Your task to perform on an android device: Show the shopping cart on newegg. Search for "usb-c to usb-b" on newegg, select the first entry, and add it to the cart. Image 0: 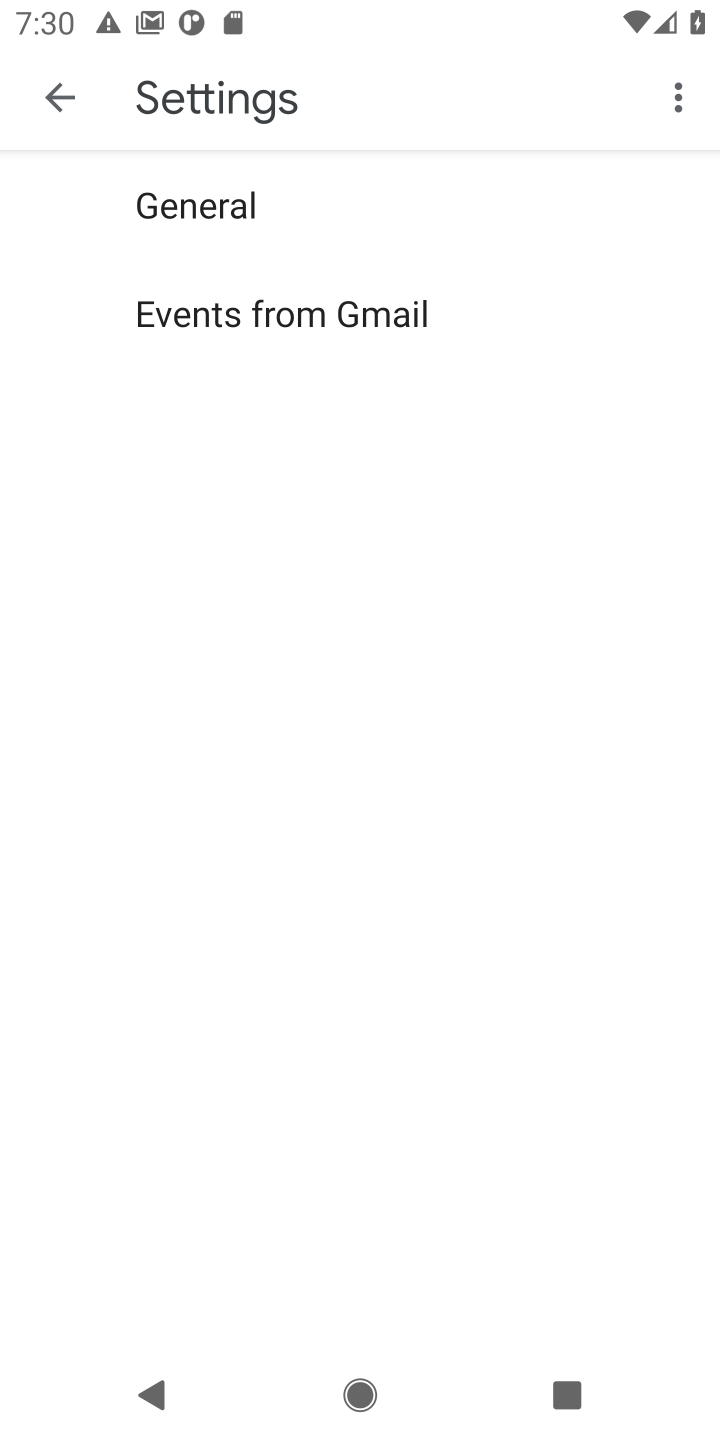
Step 0: press home button
Your task to perform on an android device: Show the shopping cart on newegg. Search for "usb-c to usb-b" on newegg, select the first entry, and add it to the cart. Image 1: 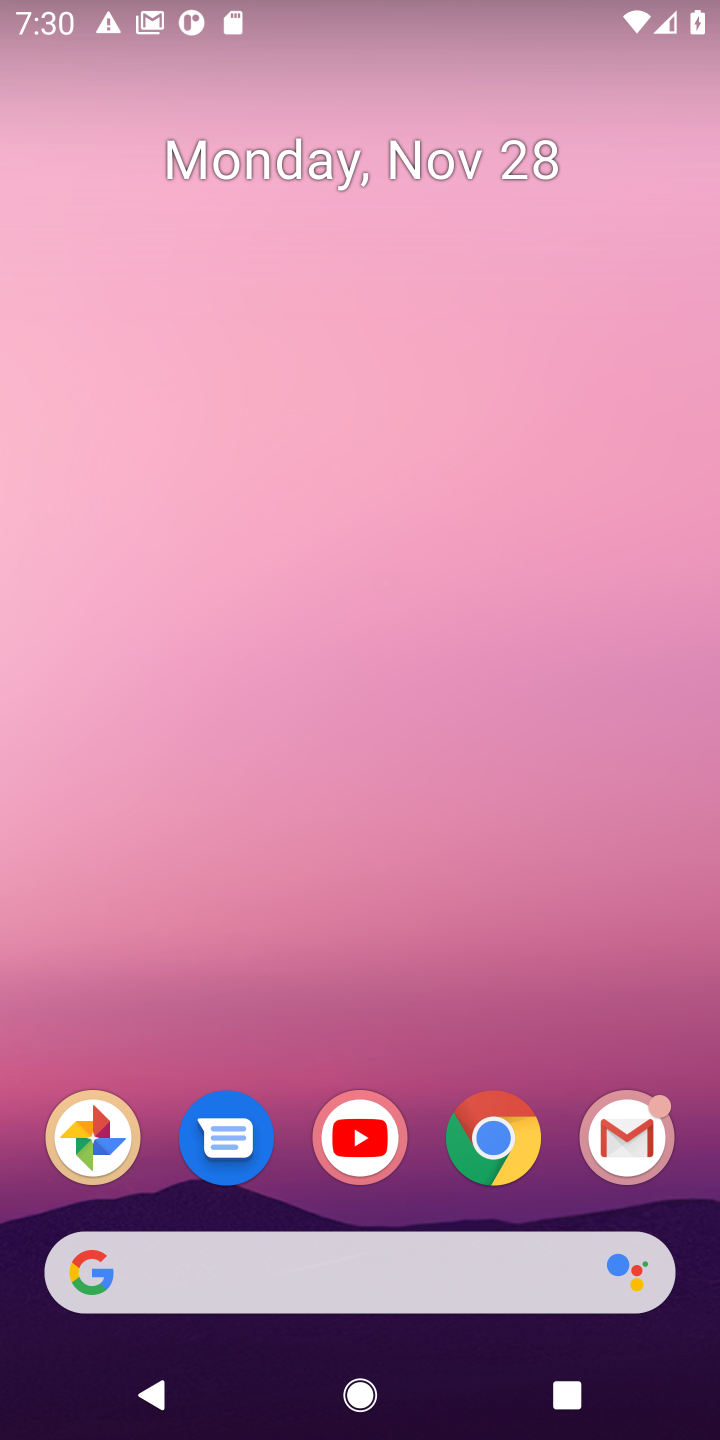
Step 1: click (476, 1147)
Your task to perform on an android device: Show the shopping cart on newegg. Search for "usb-c to usb-b" on newegg, select the first entry, and add it to the cart. Image 2: 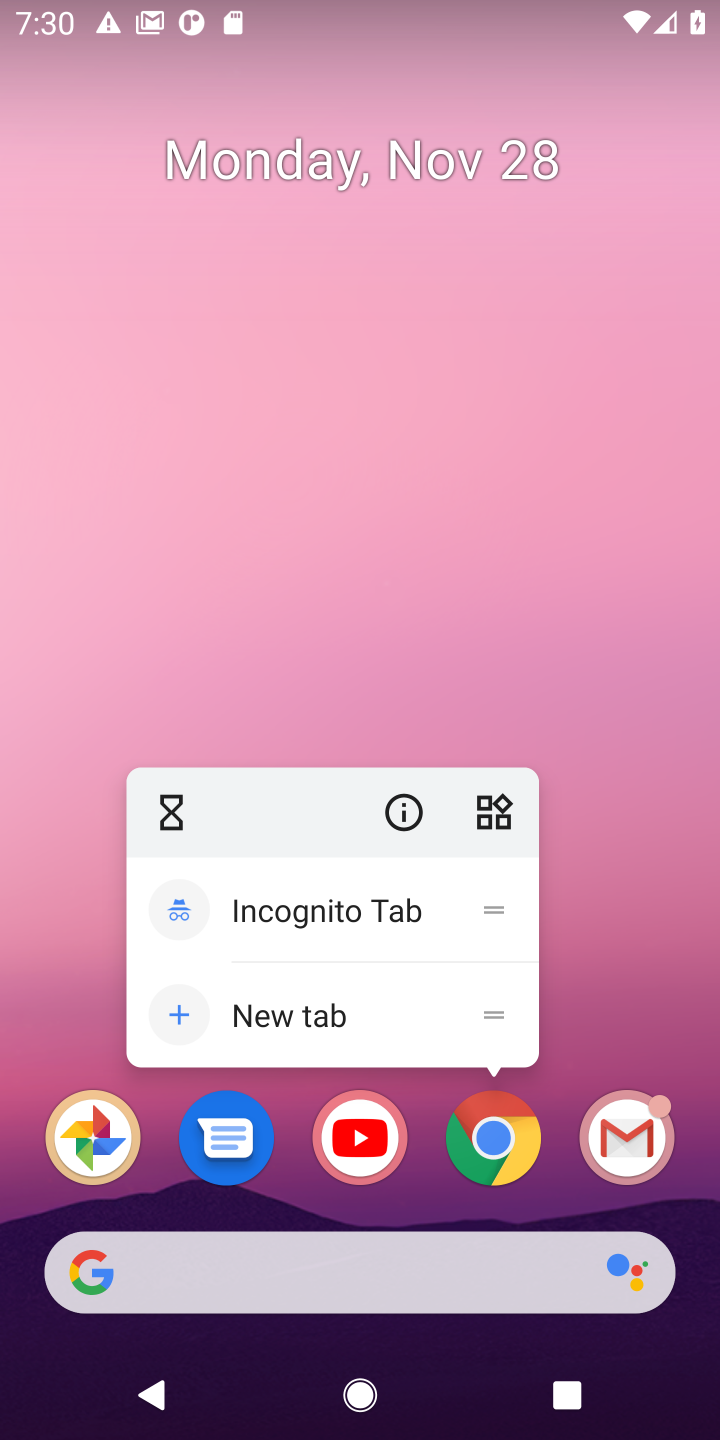
Step 2: click (511, 1141)
Your task to perform on an android device: Show the shopping cart on newegg. Search for "usb-c to usb-b" on newegg, select the first entry, and add it to the cart. Image 3: 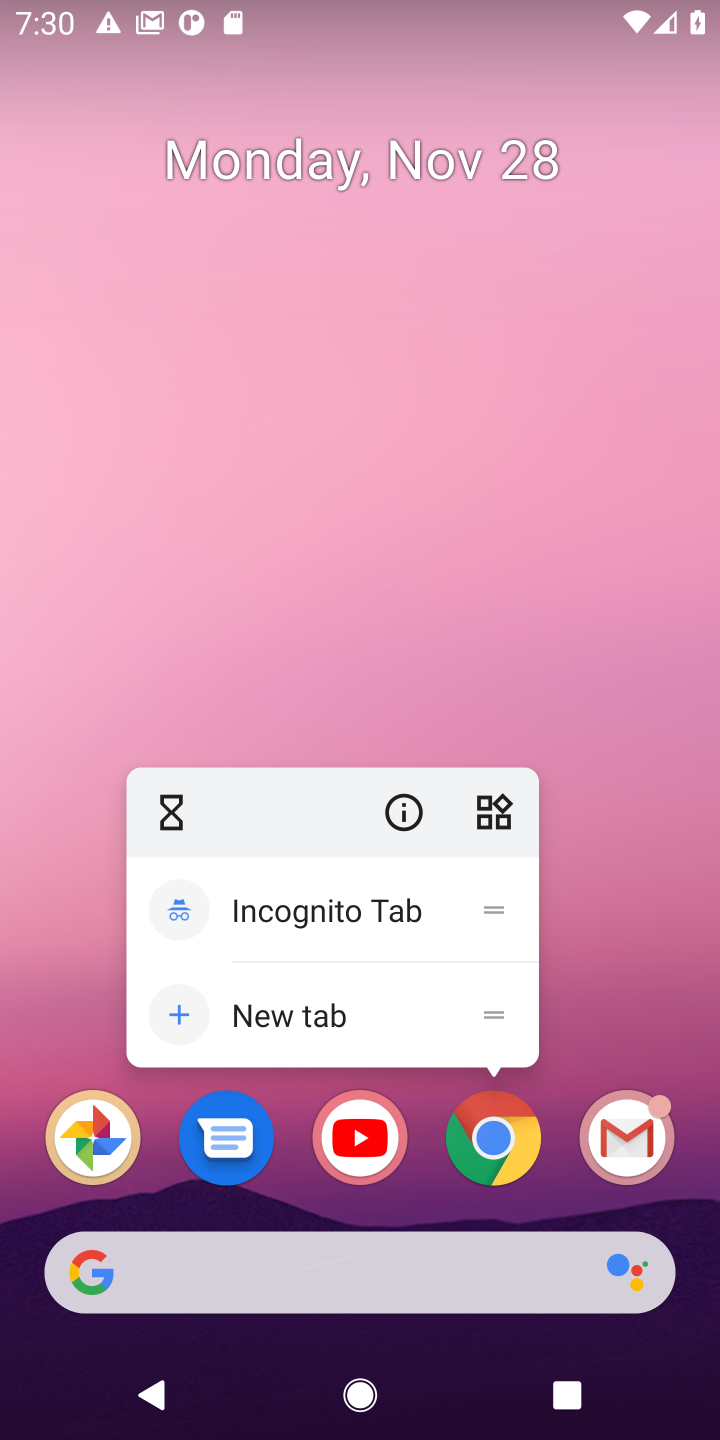
Step 3: click (495, 1155)
Your task to perform on an android device: Show the shopping cart on newegg. Search for "usb-c to usb-b" on newegg, select the first entry, and add it to the cart. Image 4: 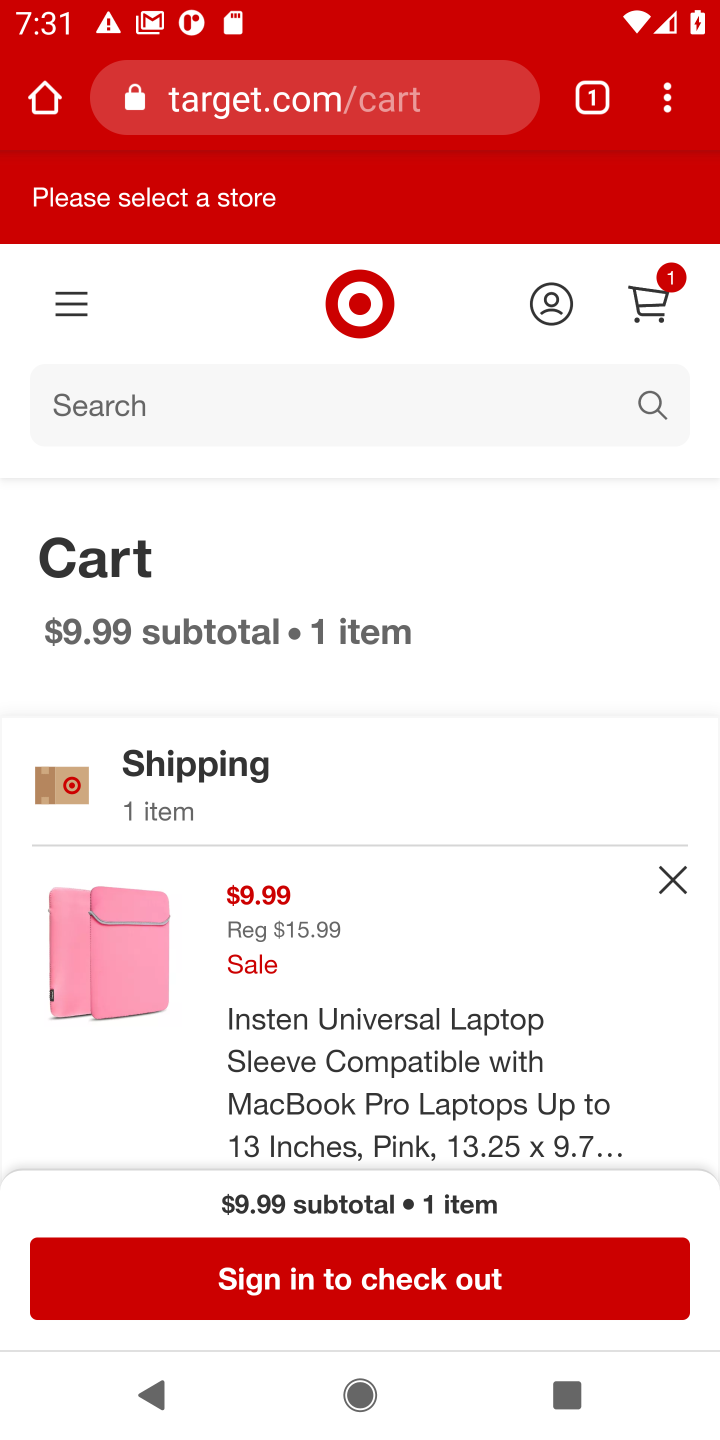
Step 4: click (277, 94)
Your task to perform on an android device: Show the shopping cart on newegg. Search for "usb-c to usb-b" on newegg, select the first entry, and add it to the cart. Image 5: 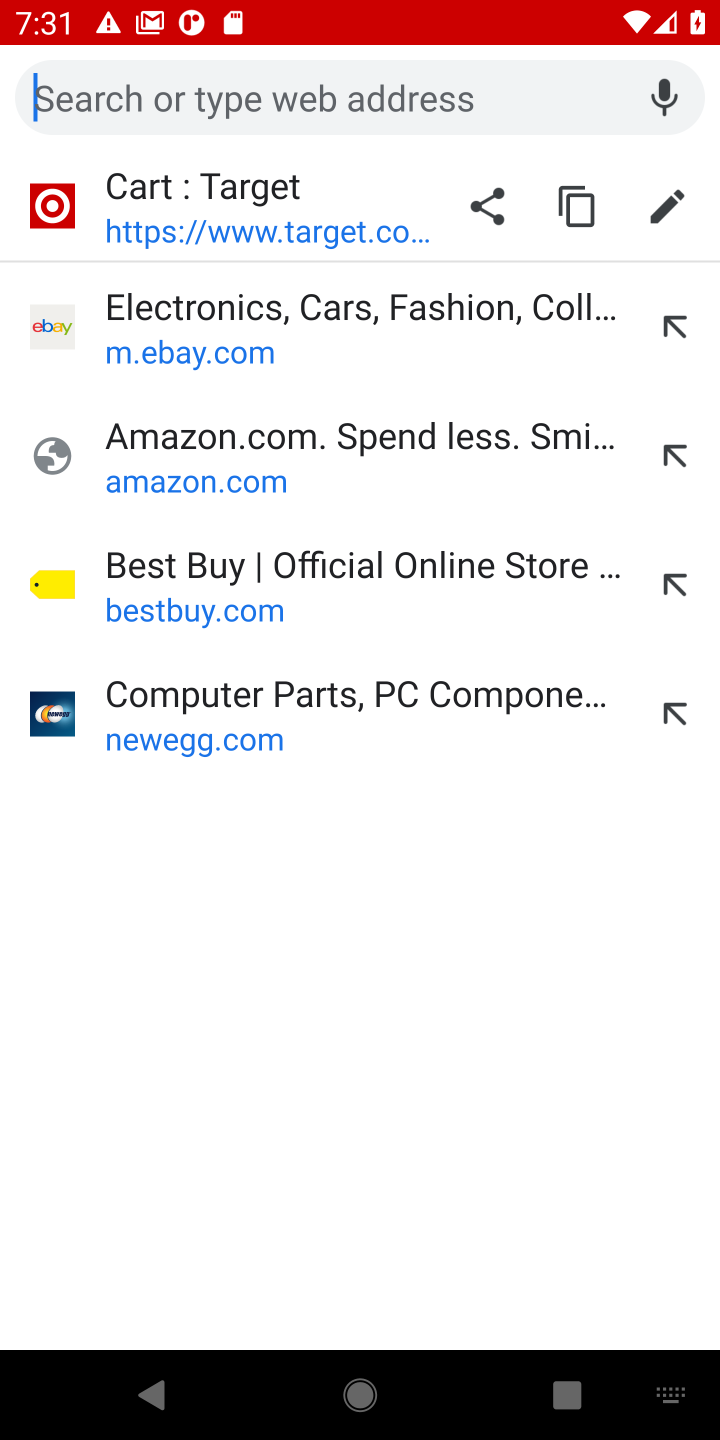
Step 5: click (173, 730)
Your task to perform on an android device: Show the shopping cart on newegg. Search for "usb-c to usb-b" on newegg, select the first entry, and add it to the cart. Image 6: 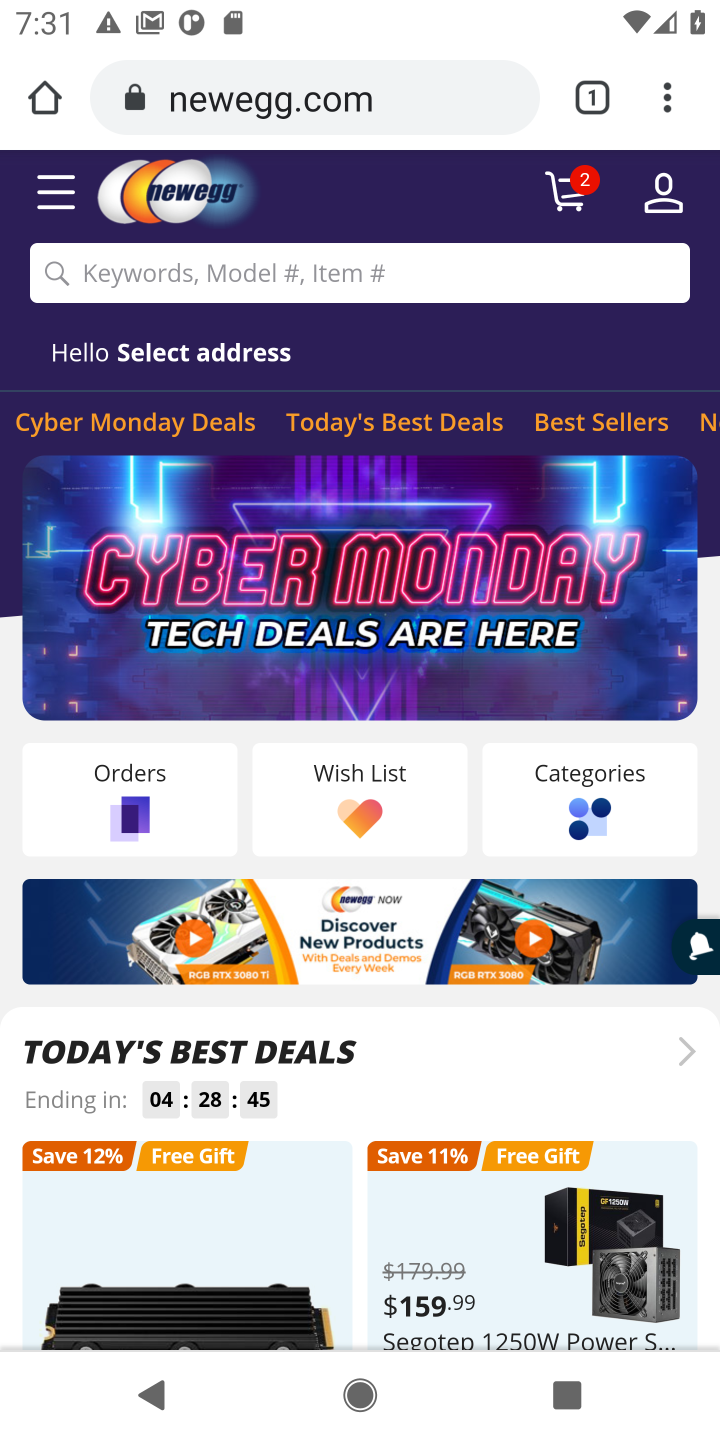
Step 6: click (570, 193)
Your task to perform on an android device: Show the shopping cart on newegg. Search for "usb-c to usb-b" on newegg, select the first entry, and add it to the cart. Image 7: 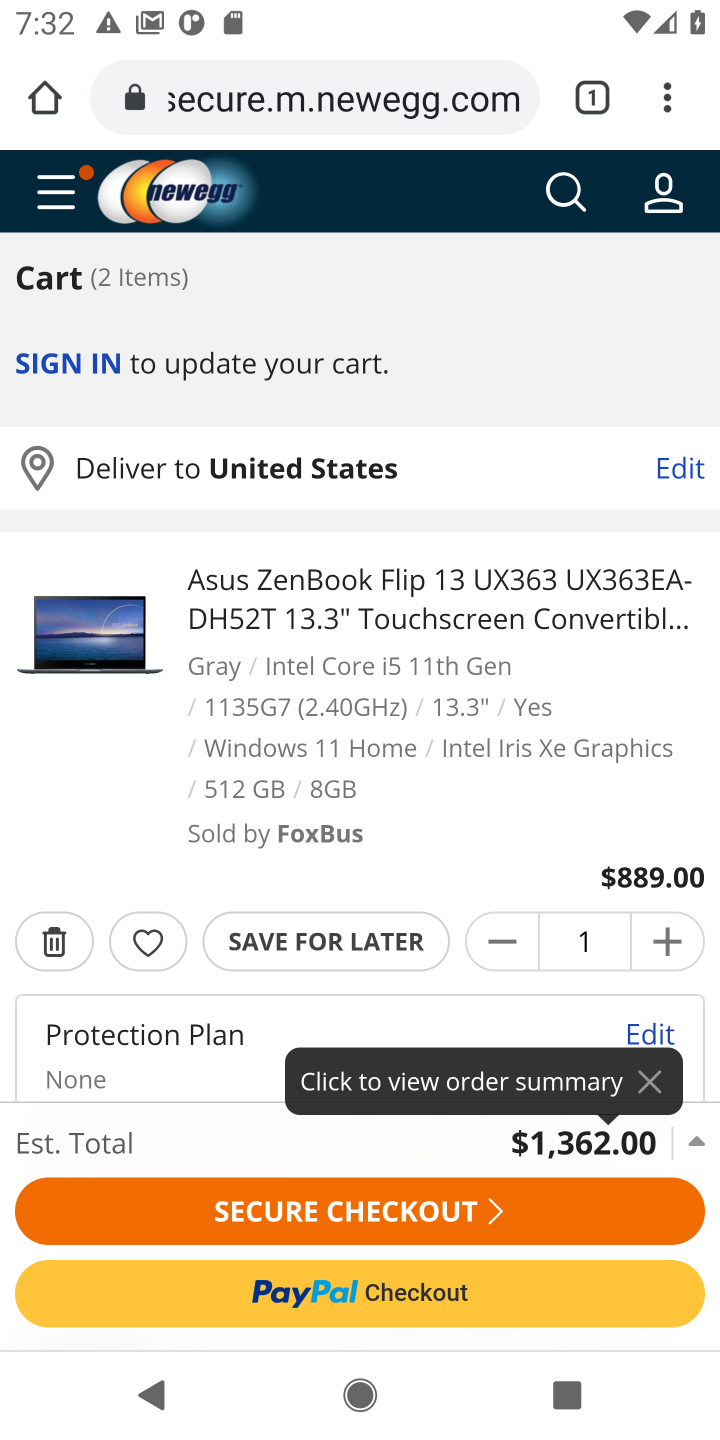
Step 7: click (564, 200)
Your task to perform on an android device: Show the shopping cart on newegg. Search for "usb-c to usb-b" on newegg, select the first entry, and add it to the cart. Image 8: 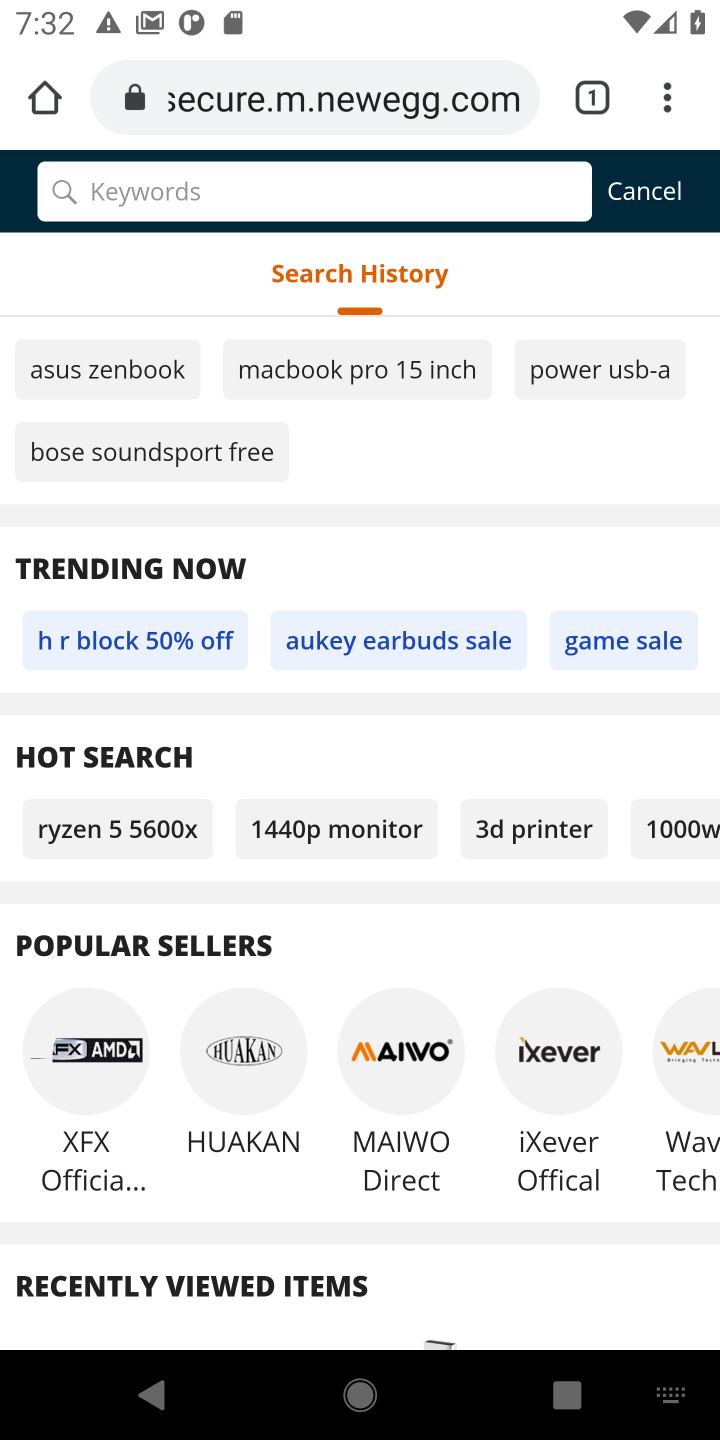
Step 8: type "usb-c to usb-b"
Your task to perform on an android device: Show the shopping cart on newegg. Search for "usb-c to usb-b" on newegg, select the first entry, and add it to the cart. Image 9: 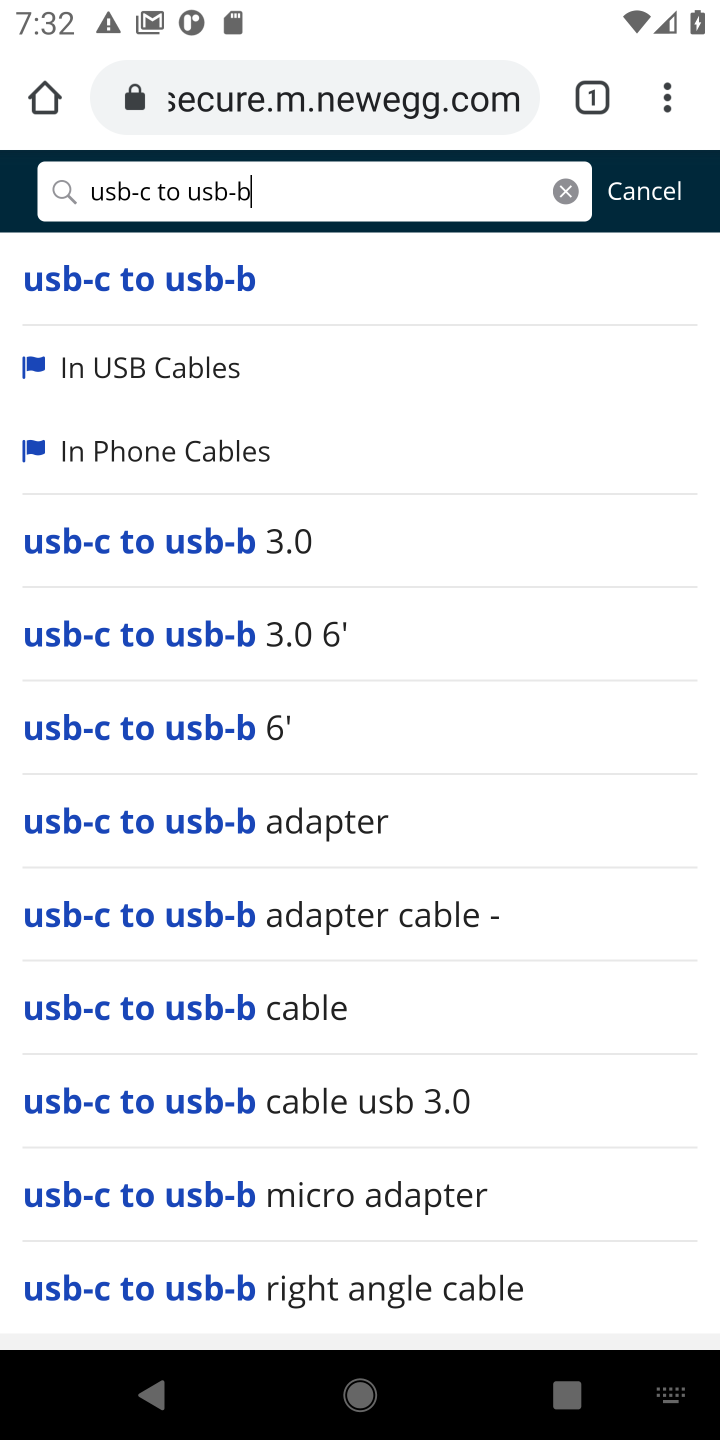
Step 9: click (161, 277)
Your task to perform on an android device: Show the shopping cart on newegg. Search for "usb-c to usb-b" on newegg, select the first entry, and add it to the cart. Image 10: 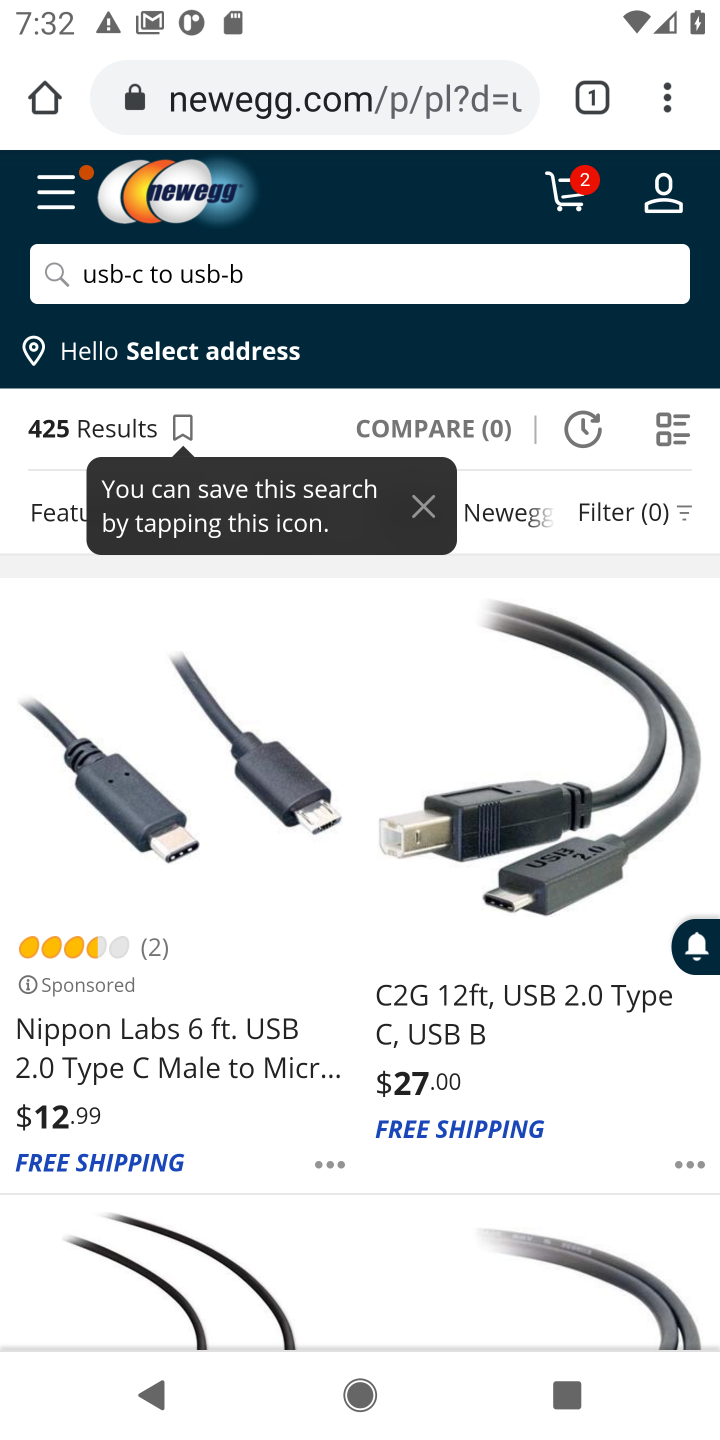
Step 10: click (192, 878)
Your task to perform on an android device: Show the shopping cart on newegg. Search for "usb-c to usb-b" on newegg, select the first entry, and add it to the cart. Image 11: 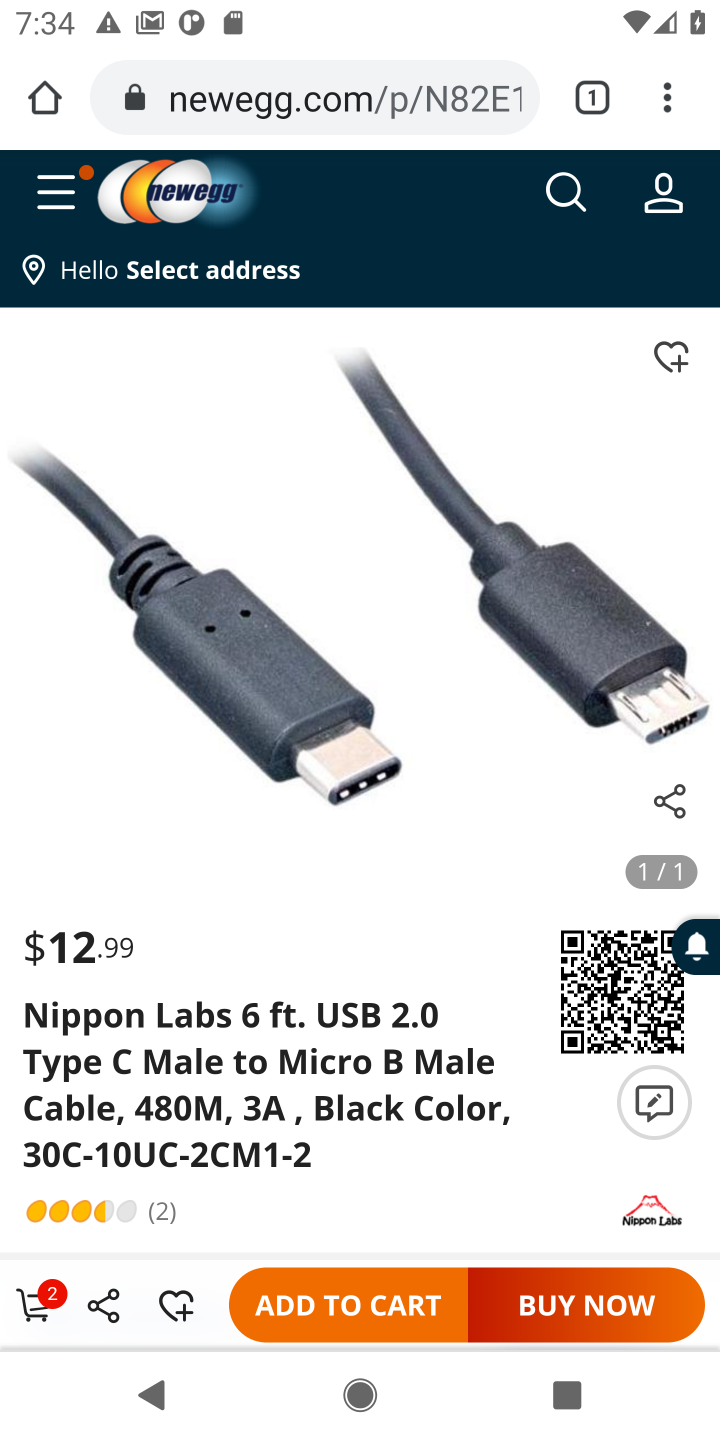
Step 11: click (359, 1312)
Your task to perform on an android device: Show the shopping cart on newegg. Search for "usb-c to usb-b" on newegg, select the first entry, and add it to the cart. Image 12: 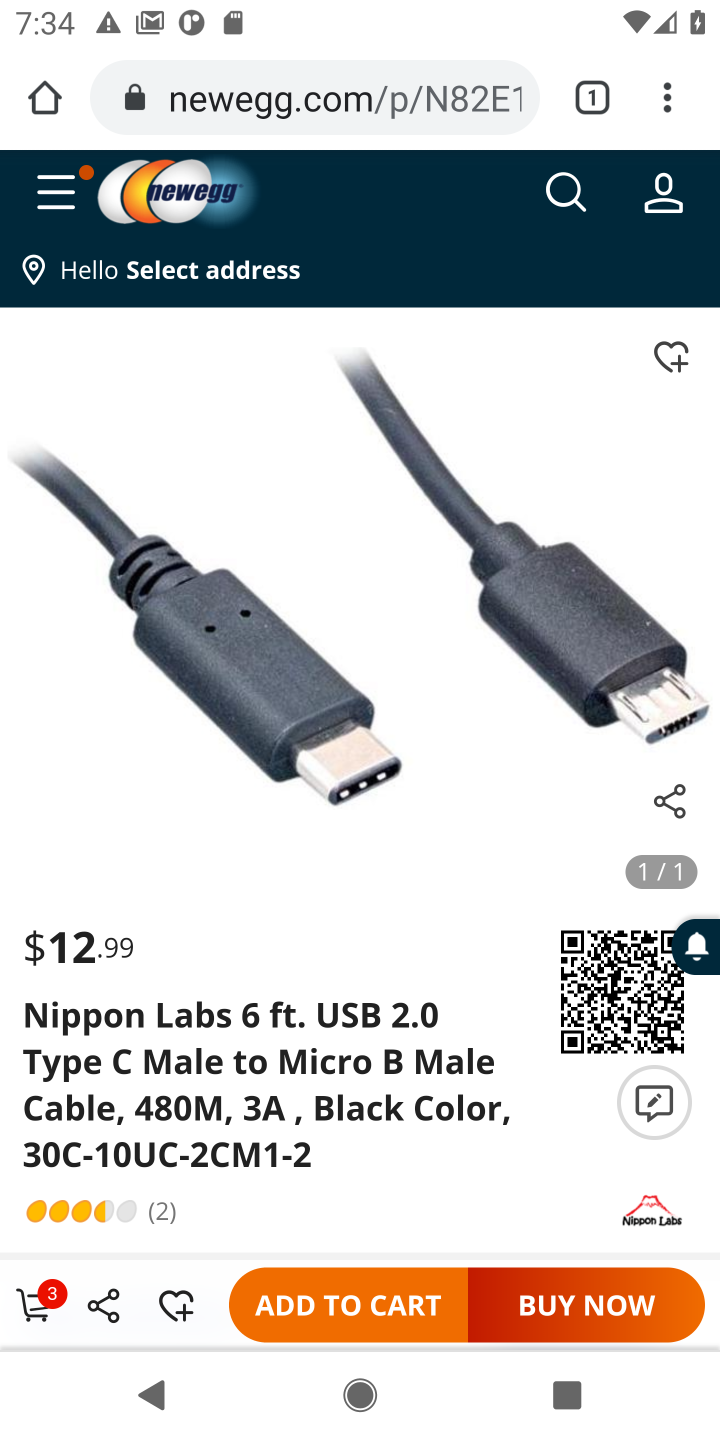
Step 12: task complete